Your task to perform on an android device: Check the news Image 0: 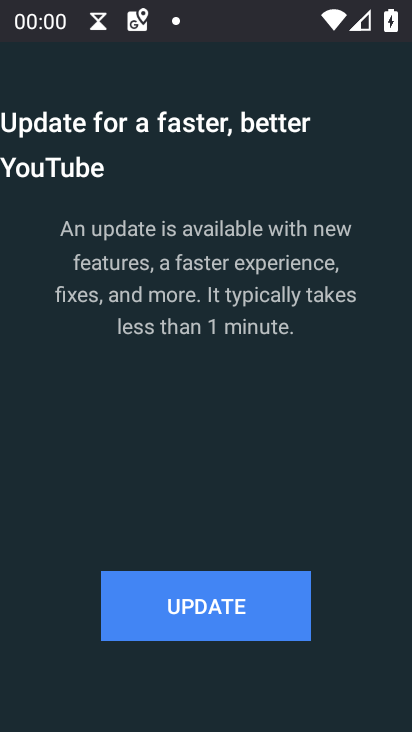
Step 0: press home button
Your task to perform on an android device: Check the news Image 1: 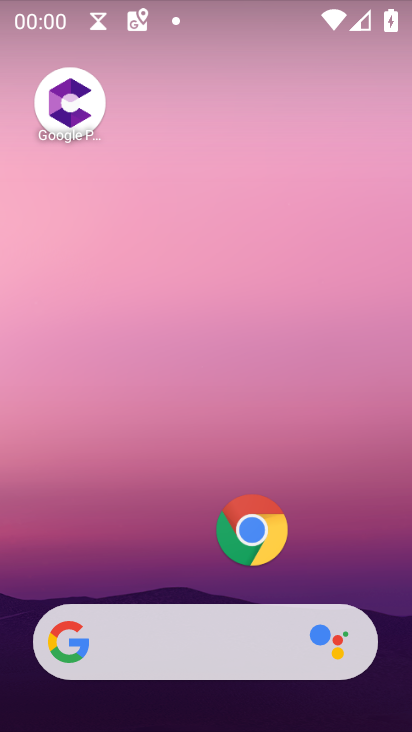
Step 1: drag from (167, 553) to (110, 140)
Your task to perform on an android device: Check the news Image 2: 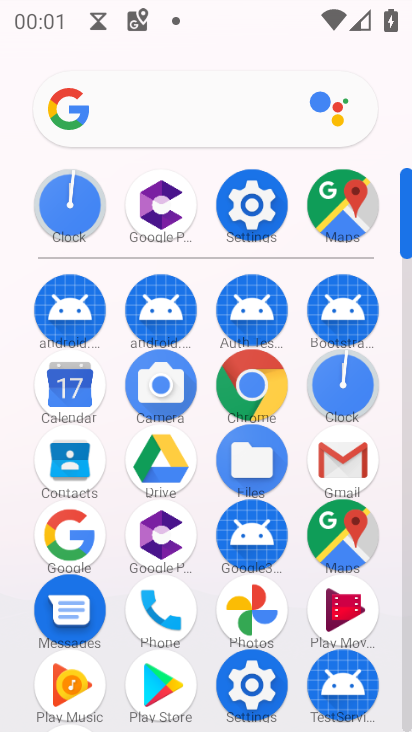
Step 2: click (75, 542)
Your task to perform on an android device: Check the news Image 3: 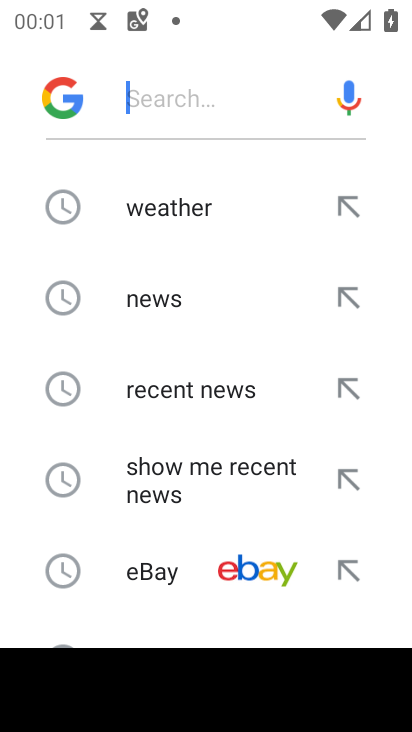
Step 3: click (148, 316)
Your task to perform on an android device: Check the news Image 4: 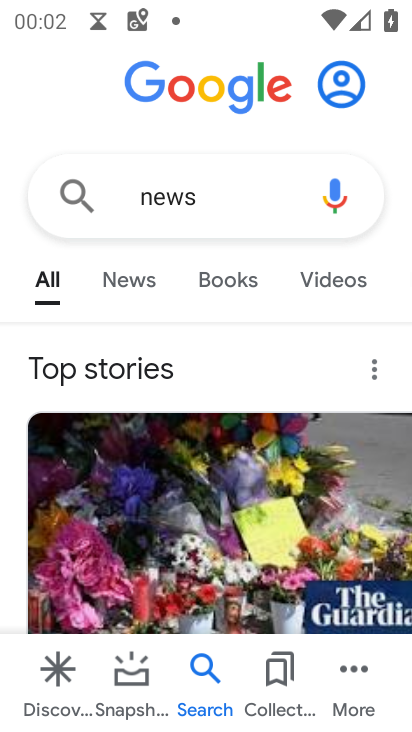
Step 4: click (142, 290)
Your task to perform on an android device: Check the news Image 5: 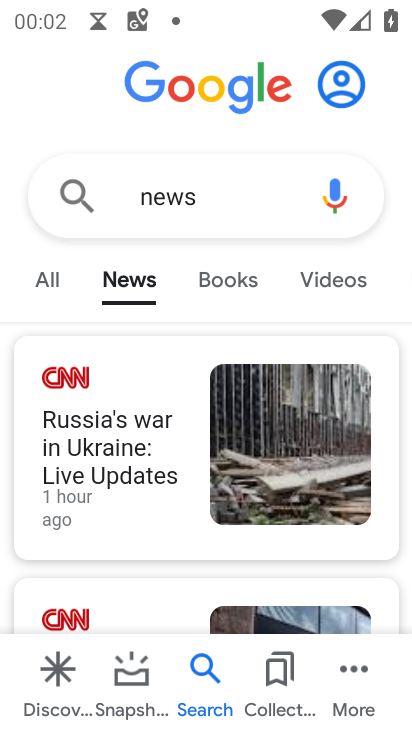
Step 5: task complete